Your task to perform on an android device: toggle airplane mode Image 0: 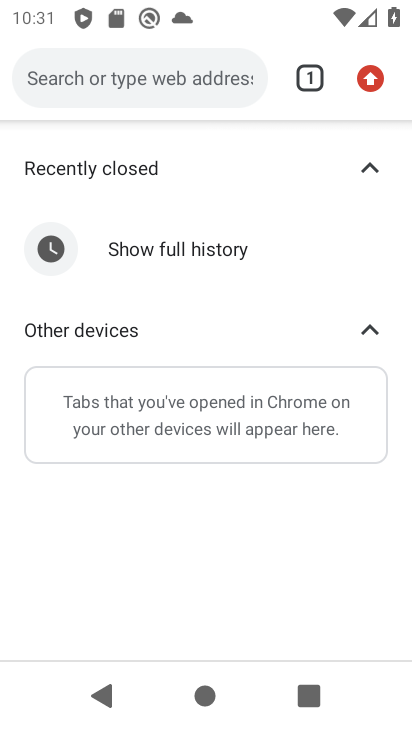
Step 0: press home button
Your task to perform on an android device: toggle airplane mode Image 1: 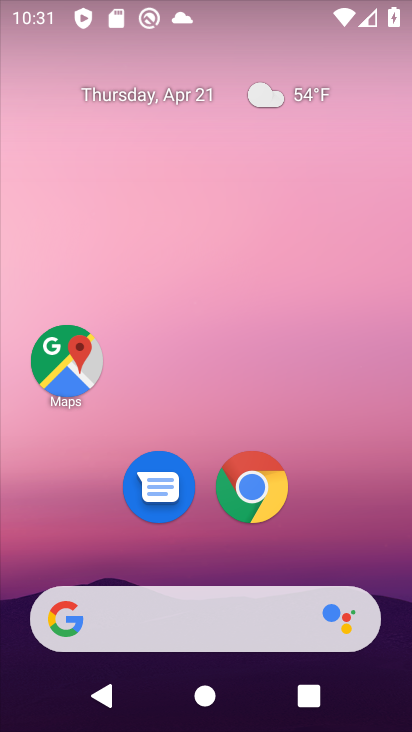
Step 1: drag from (317, 530) to (364, 132)
Your task to perform on an android device: toggle airplane mode Image 2: 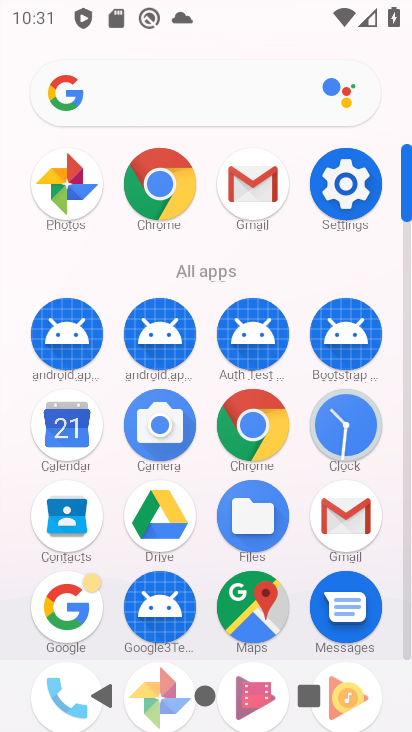
Step 2: click (333, 205)
Your task to perform on an android device: toggle airplane mode Image 3: 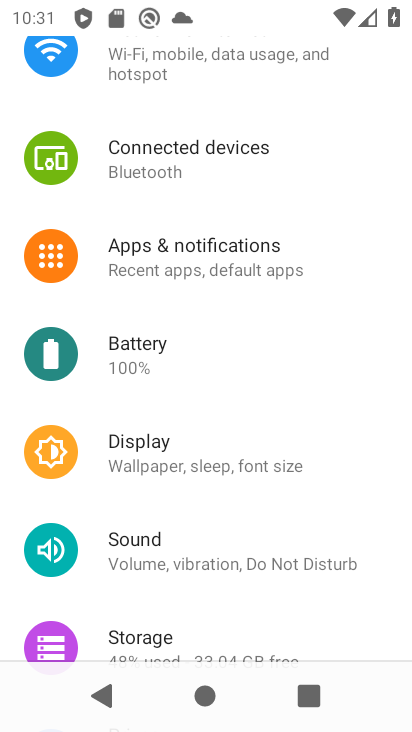
Step 3: drag from (327, 155) to (309, 483)
Your task to perform on an android device: toggle airplane mode Image 4: 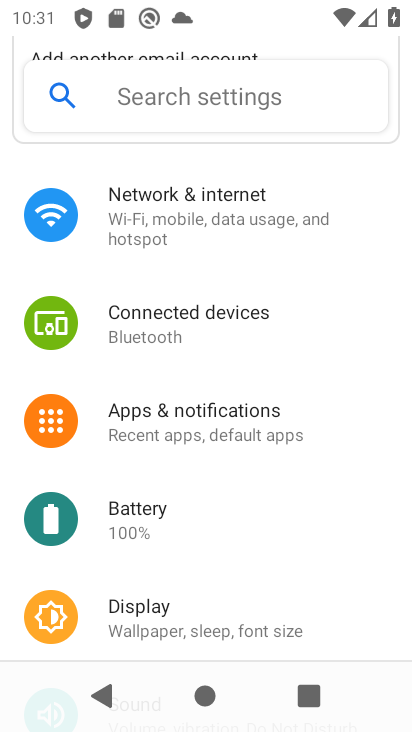
Step 4: click (306, 204)
Your task to perform on an android device: toggle airplane mode Image 5: 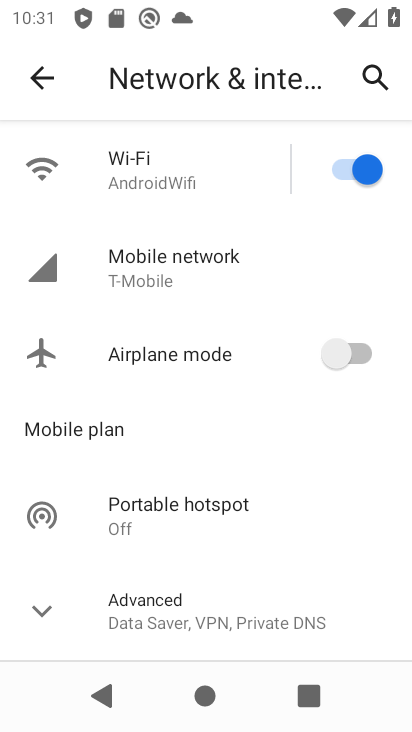
Step 5: click (360, 347)
Your task to perform on an android device: toggle airplane mode Image 6: 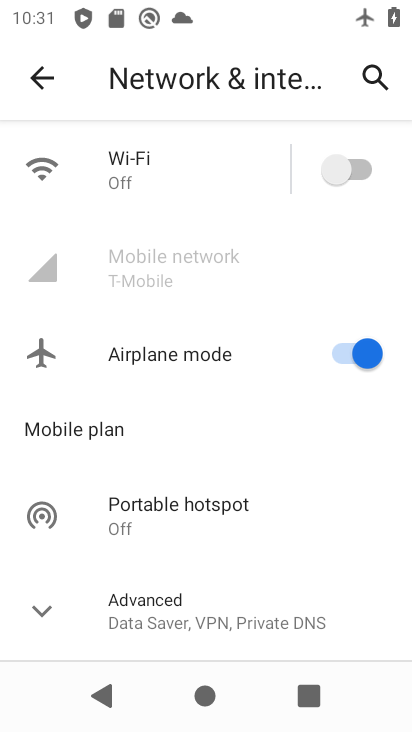
Step 6: task complete